Your task to perform on an android device: manage bookmarks in the chrome app Image 0: 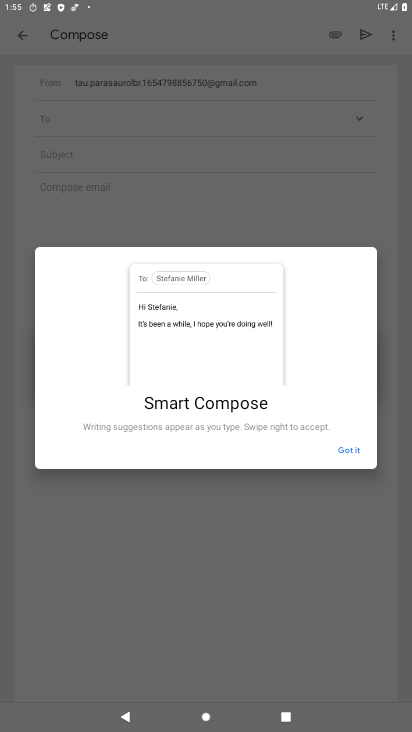
Step 0: press home button
Your task to perform on an android device: manage bookmarks in the chrome app Image 1: 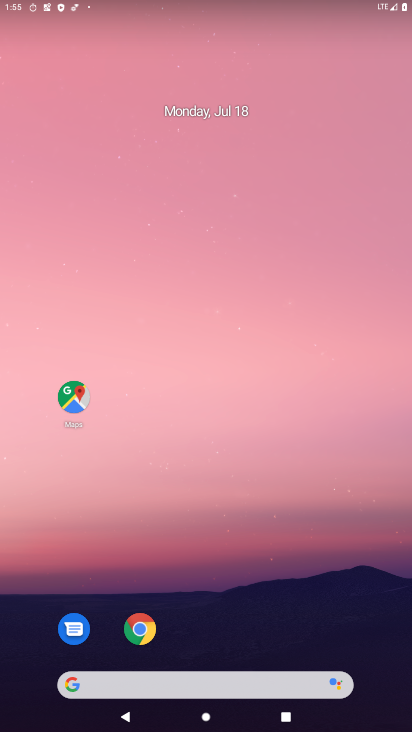
Step 1: click (140, 626)
Your task to perform on an android device: manage bookmarks in the chrome app Image 2: 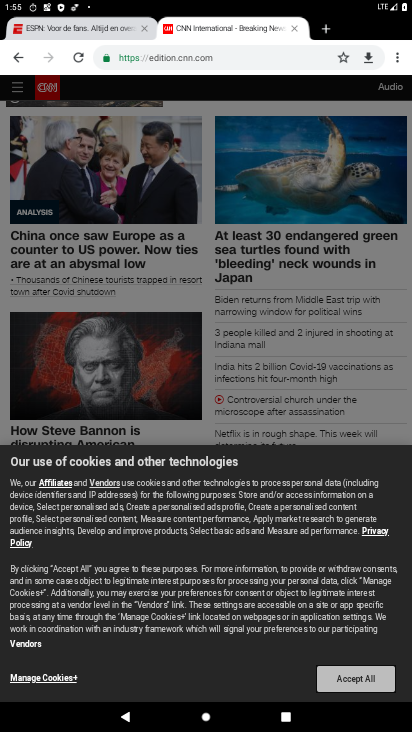
Step 2: click (365, 672)
Your task to perform on an android device: manage bookmarks in the chrome app Image 3: 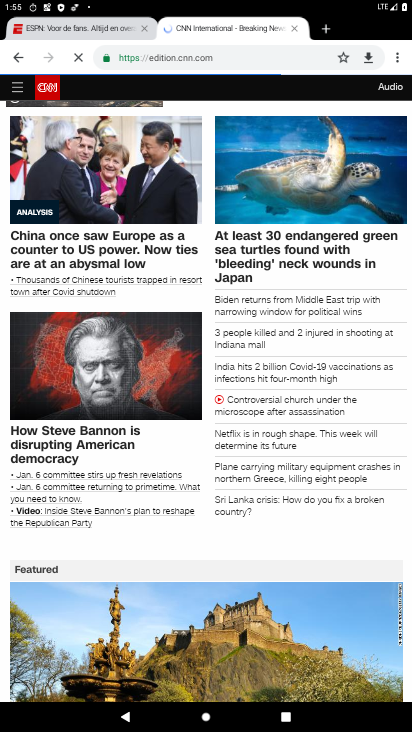
Step 3: task complete